Your task to perform on an android device: star an email in the gmail app Image 0: 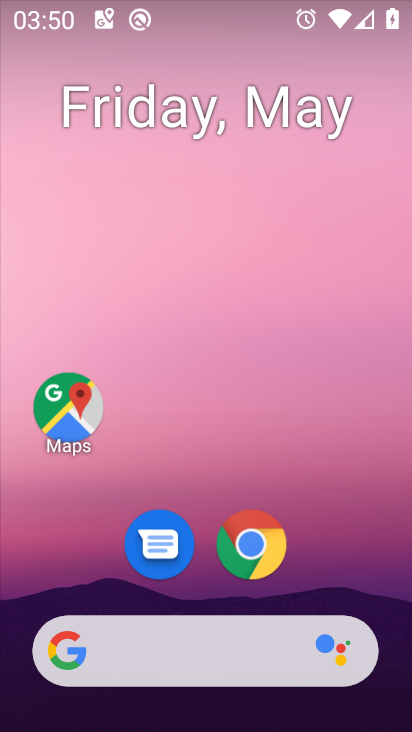
Step 0: drag from (363, 684) to (157, 88)
Your task to perform on an android device: star an email in the gmail app Image 1: 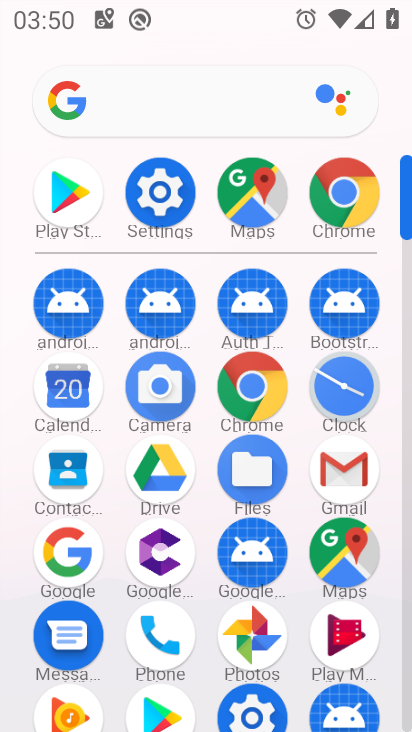
Step 1: click (341, 476)
Your task to perform on an android device: star an email in the gmail app Image 2: 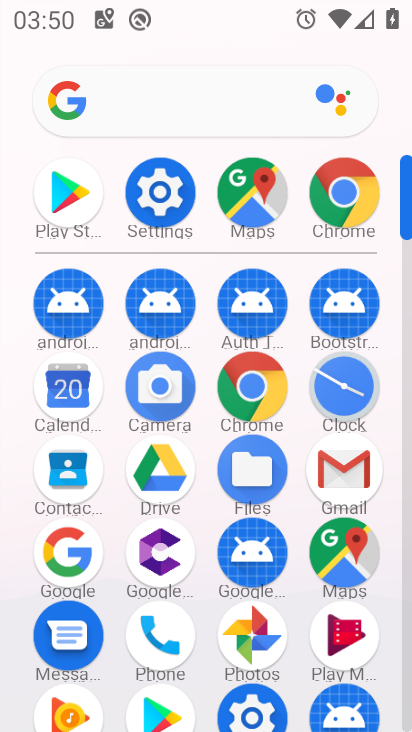
Step 2: click (339, 475)
Your task to perform on an android device: star an email in the gmail app Image 3: 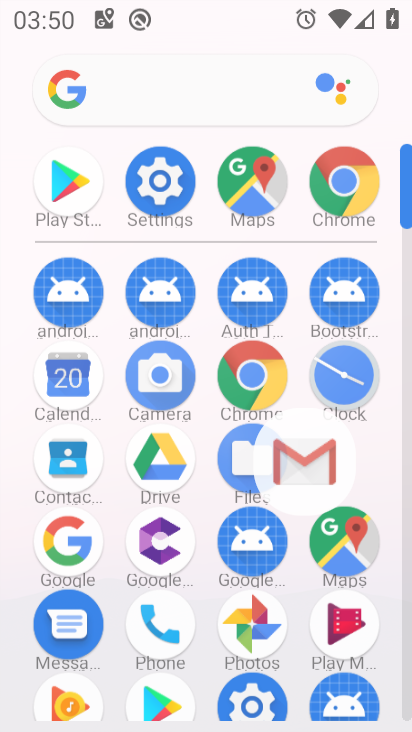
Step 3: click (339, 475)
Your task to perform on an android device: star an email in the gmail app Image 4: 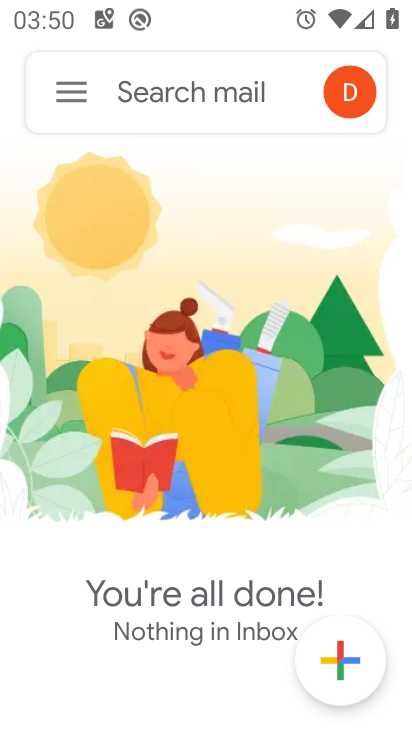
Step 4: click (64, 86)
Your task to perform on an android device: star an email in the gmail app Image 5: 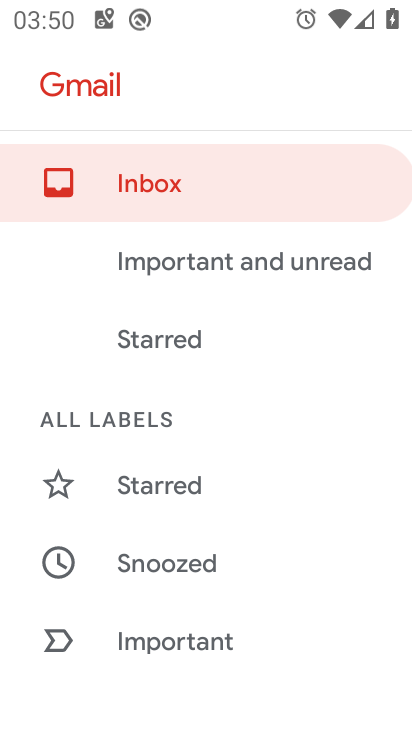
Step 5: drag from (194, 553) to (160, 94)
Your task to perform on an android device: star an email in the gmail app Image 6: 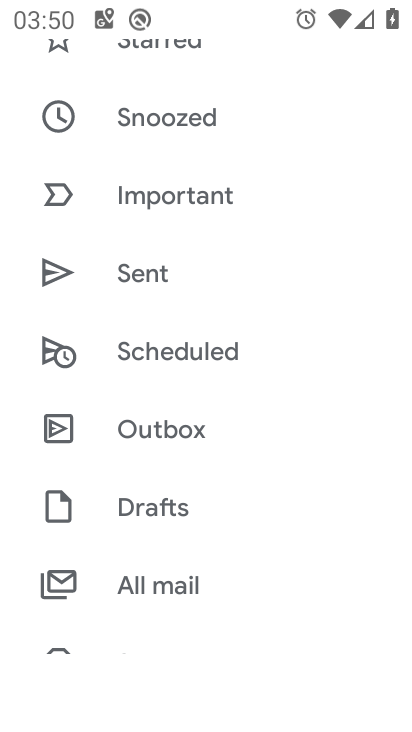
Step 6: drag from (209, 427) to (137, 164)
Your task to perform on an android device: star an email in the gmail app Image 7: 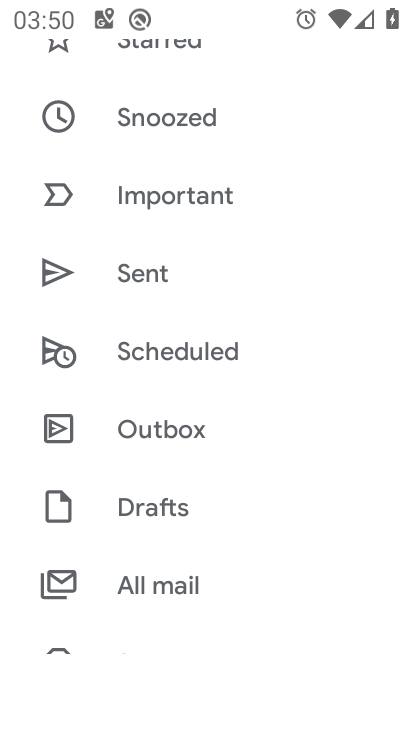
Step 7: drag from (203, 448) to (194, 137)
Your task to perform on an android device: star an email in the gmail app Image 8: 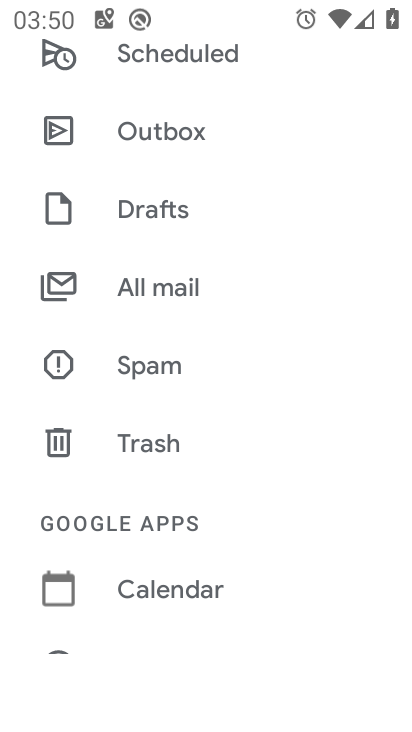
Step 8: click (157, 290)
Your task to perform on an android device: star an email in the gmail app Image 9: 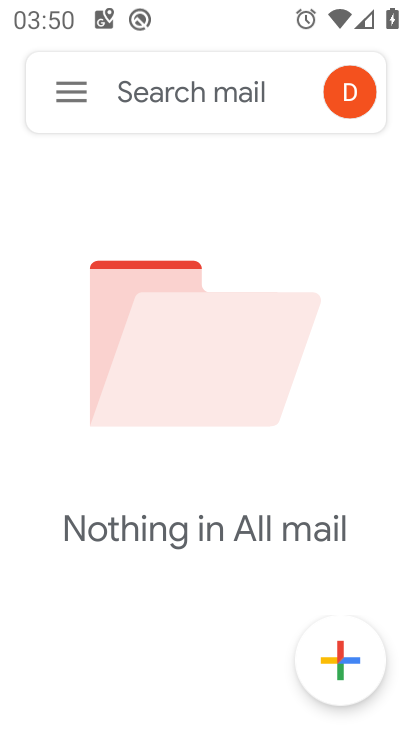
Step 9: task complete